Your task to perform on an android device: allow cookies in the chrome app Image 0: 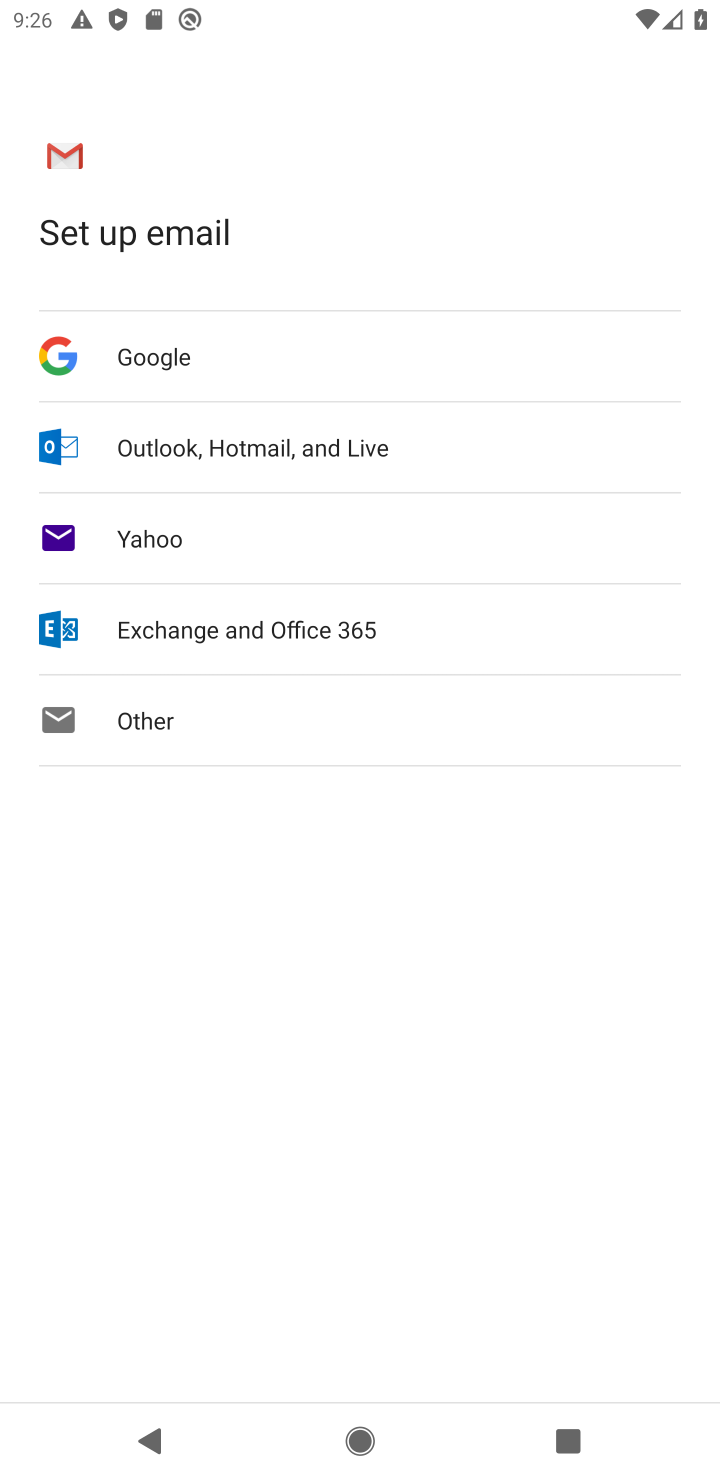
Step 0: press home button
Your task to perform on an android device: allow cookies in the chrome app Image 1: 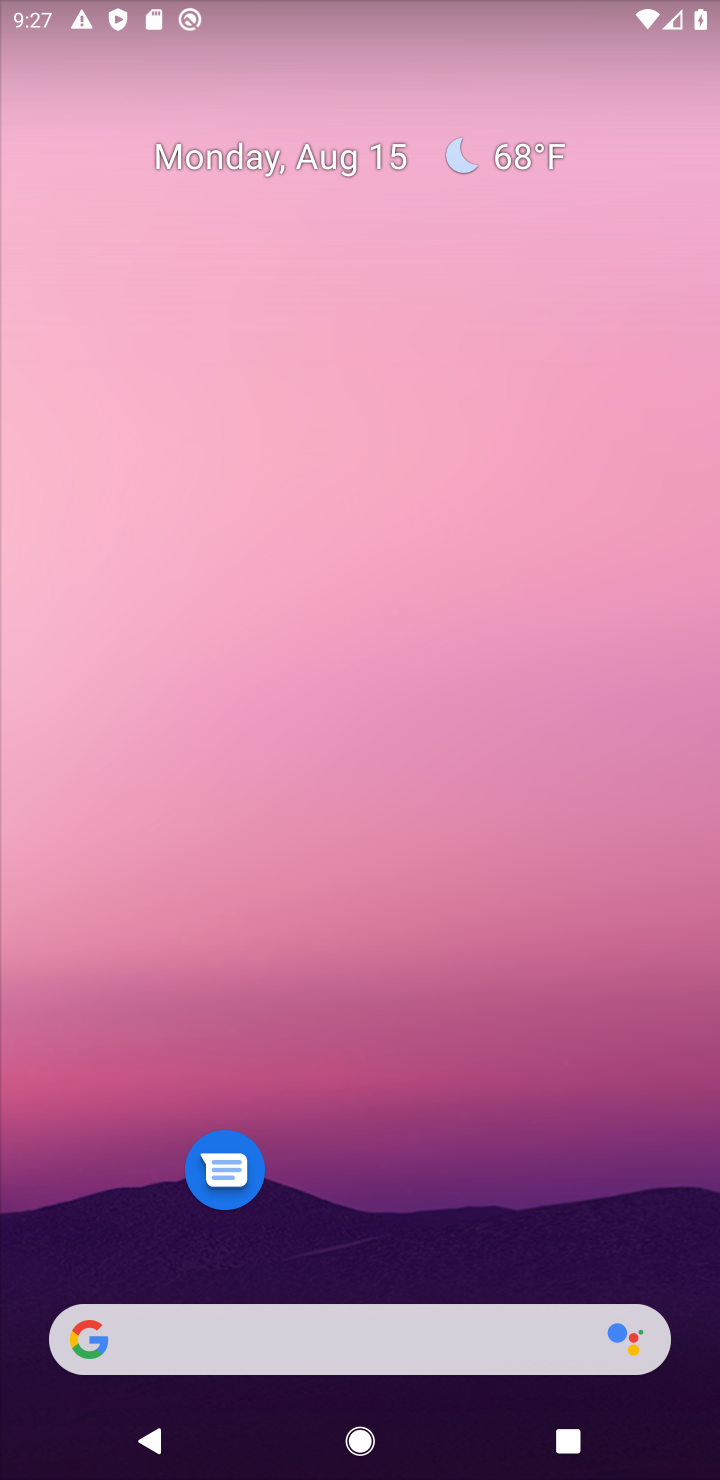
Step 1: drag from (389, 1229) to (482, 0)
Your task to perform on an android device: allow cookies in the chrome app Image 2: 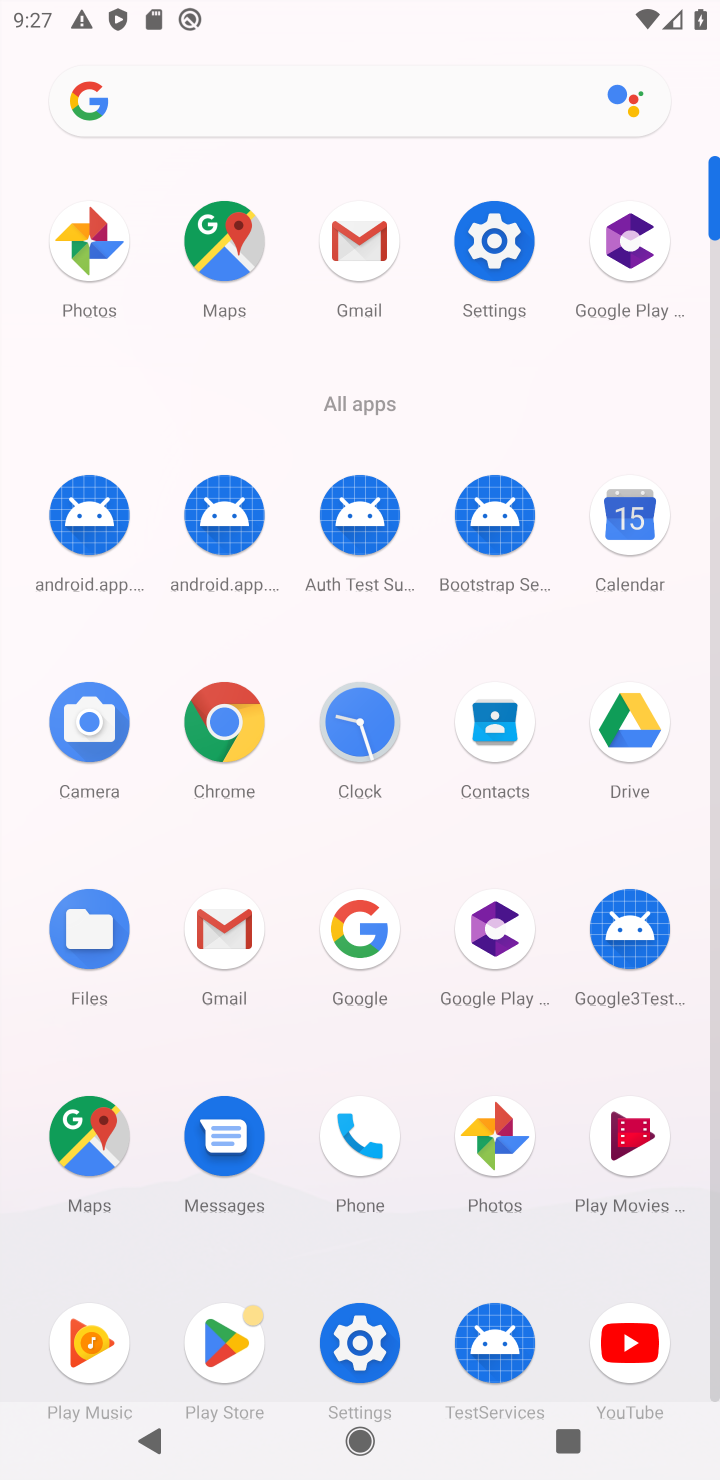
Step 2: click (243, 757)
Your task to perform on an android device: allow cookies in the chrome app Image 3: 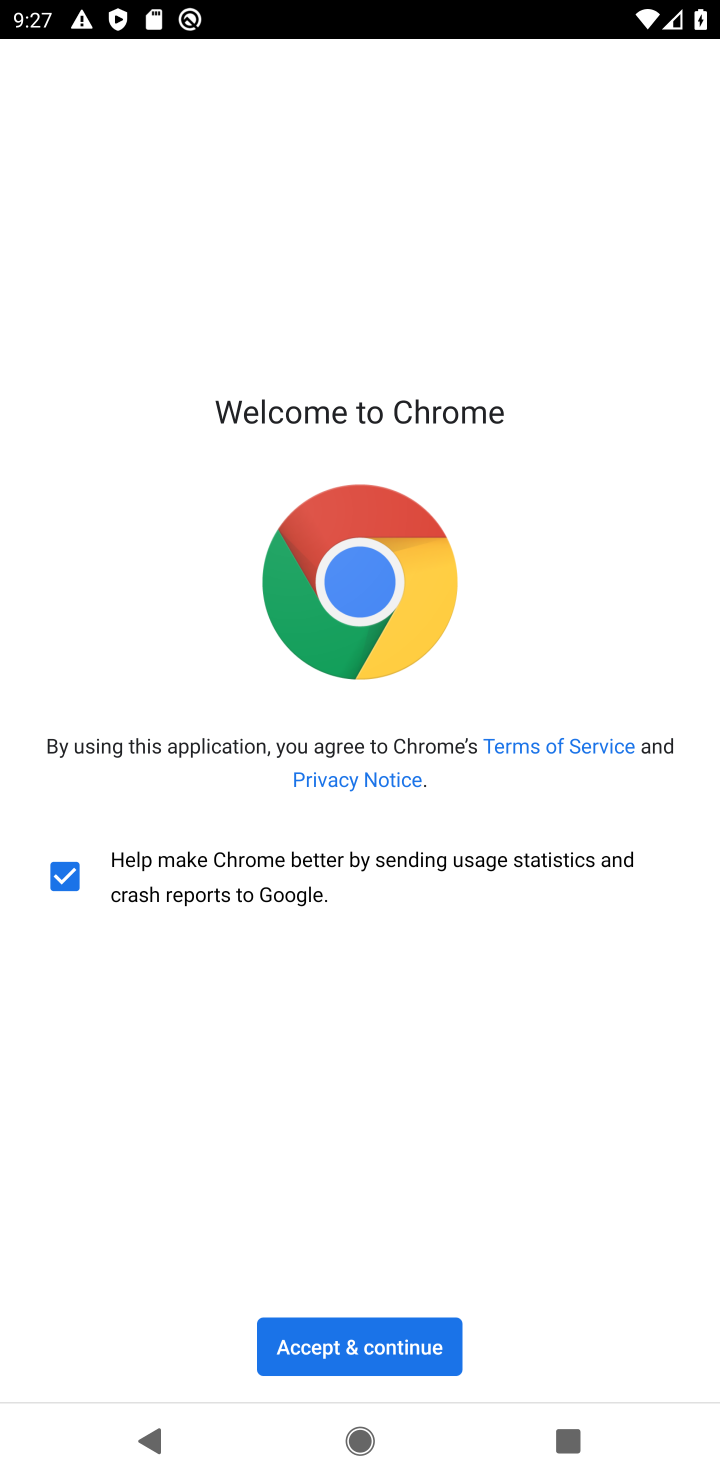
Step 3: click (341, 1363)
Your task to perform on an android device: allow cookies in the chrome app Image 4: 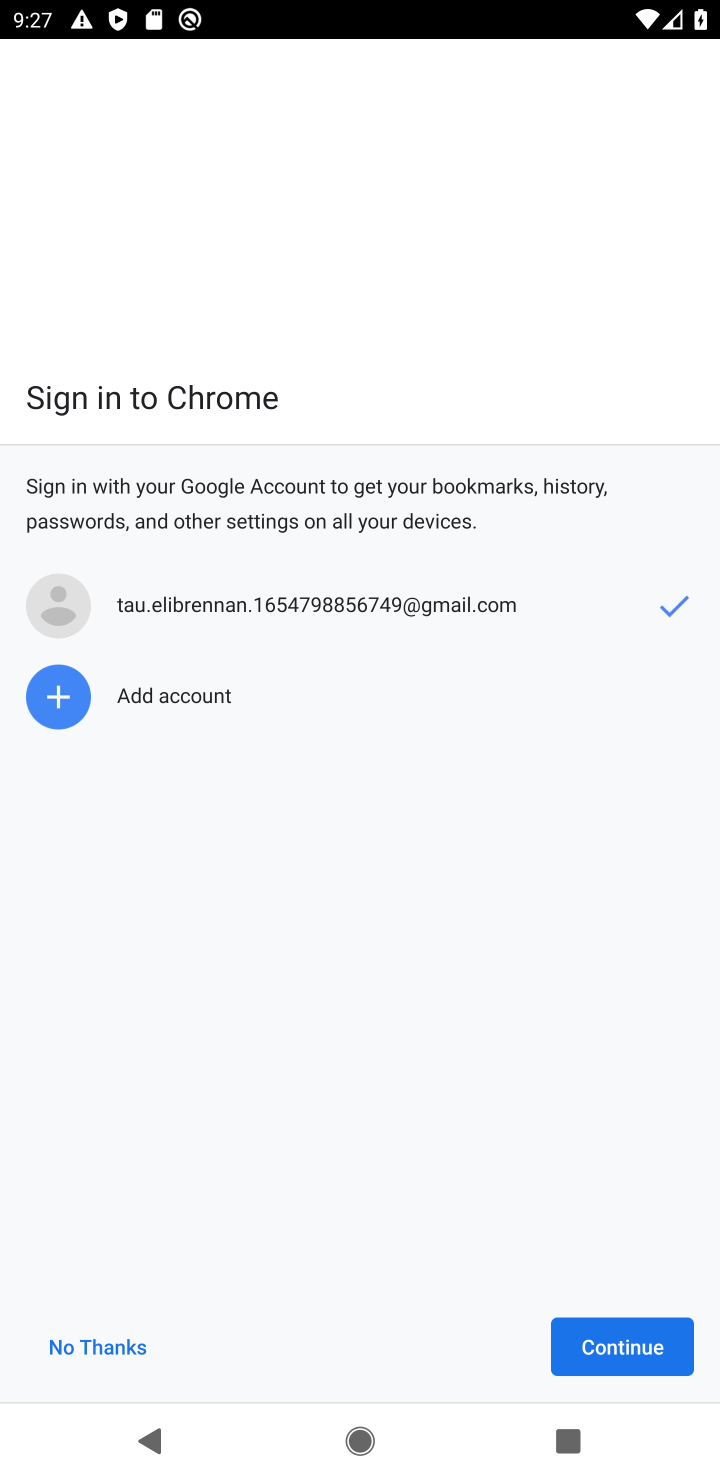
Step 4: click (101, 1354)
Your task to perform on an android device: allow cookies in the chrome app Image 5: 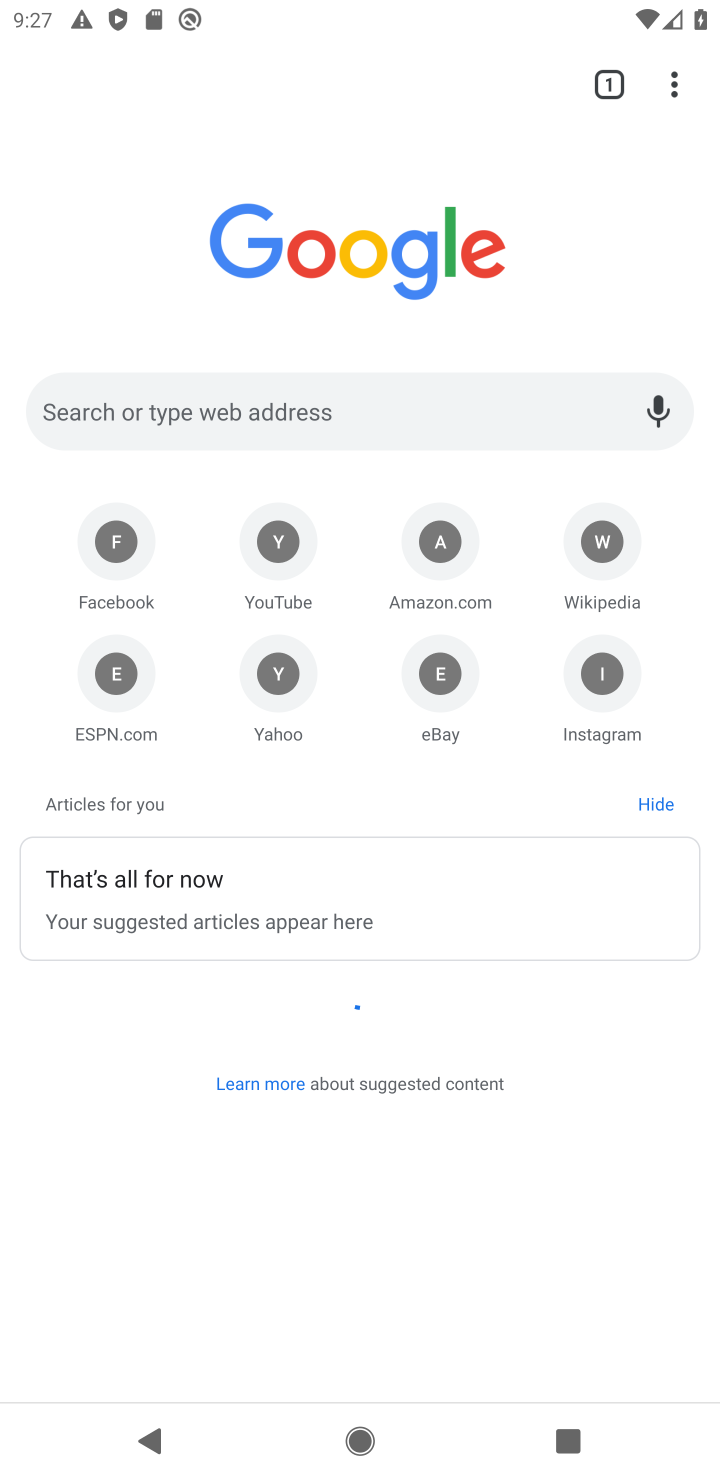
Step 5: drag from (652, 75) to (386, 728)
Your task to perform on an android device: allow cookies in the chrome app Image 6: 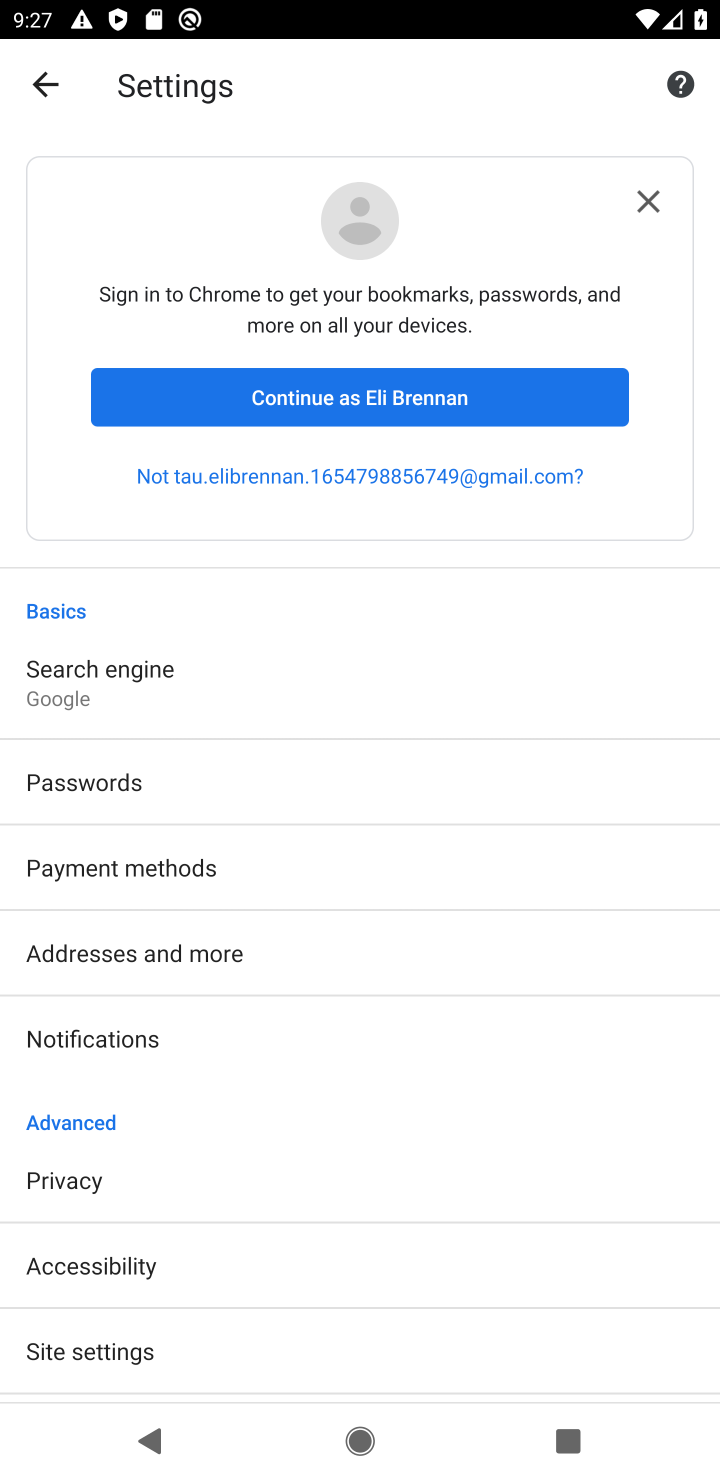
Step 6: drag from (308, 1042) to (400, 610)
Your task to perform on an android device: allow cookies in the chrome app Image 7: 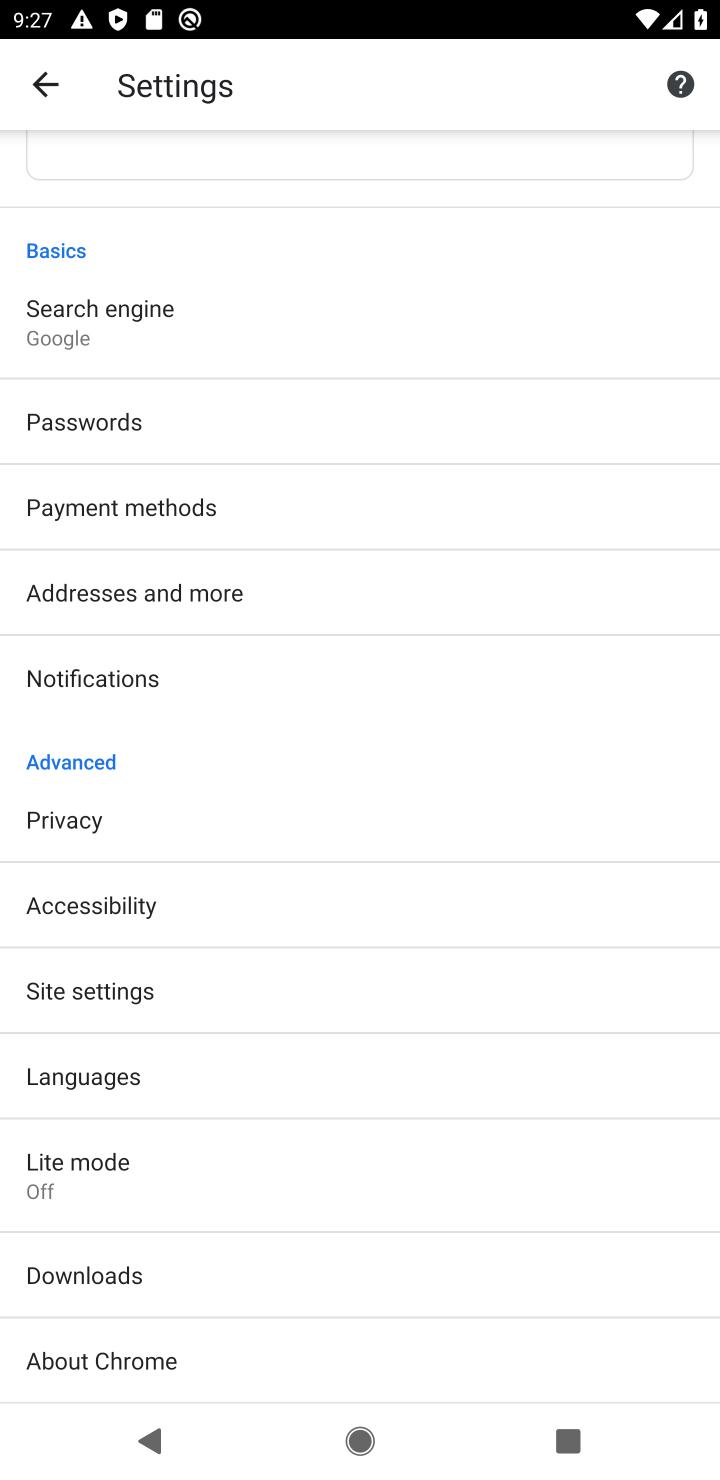
Step 7: click (82, 965)
Your task to perform on an android device: allow cookies in the chrome app Image 8: 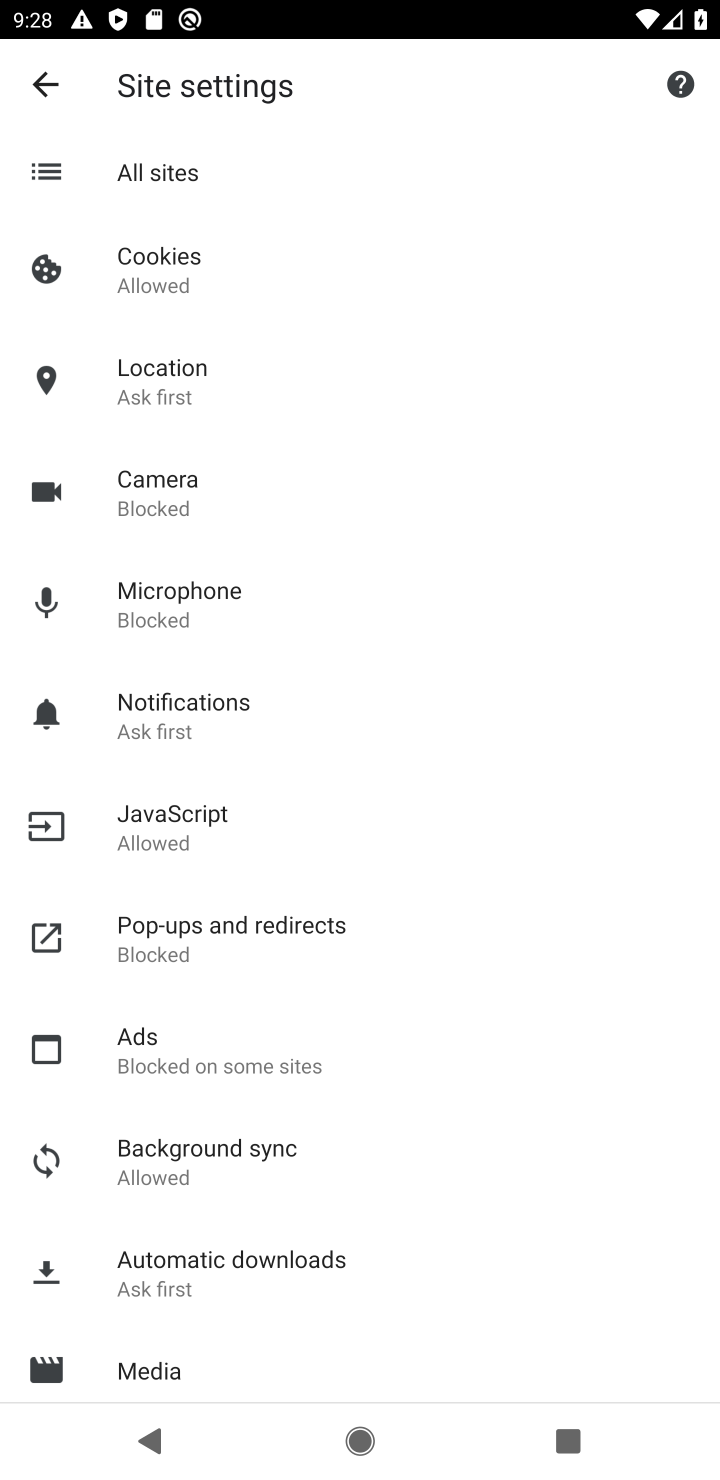
Step 8: click (172, 319)
Your task to perform on an android device: allow cookies in the chrome app Image 9: 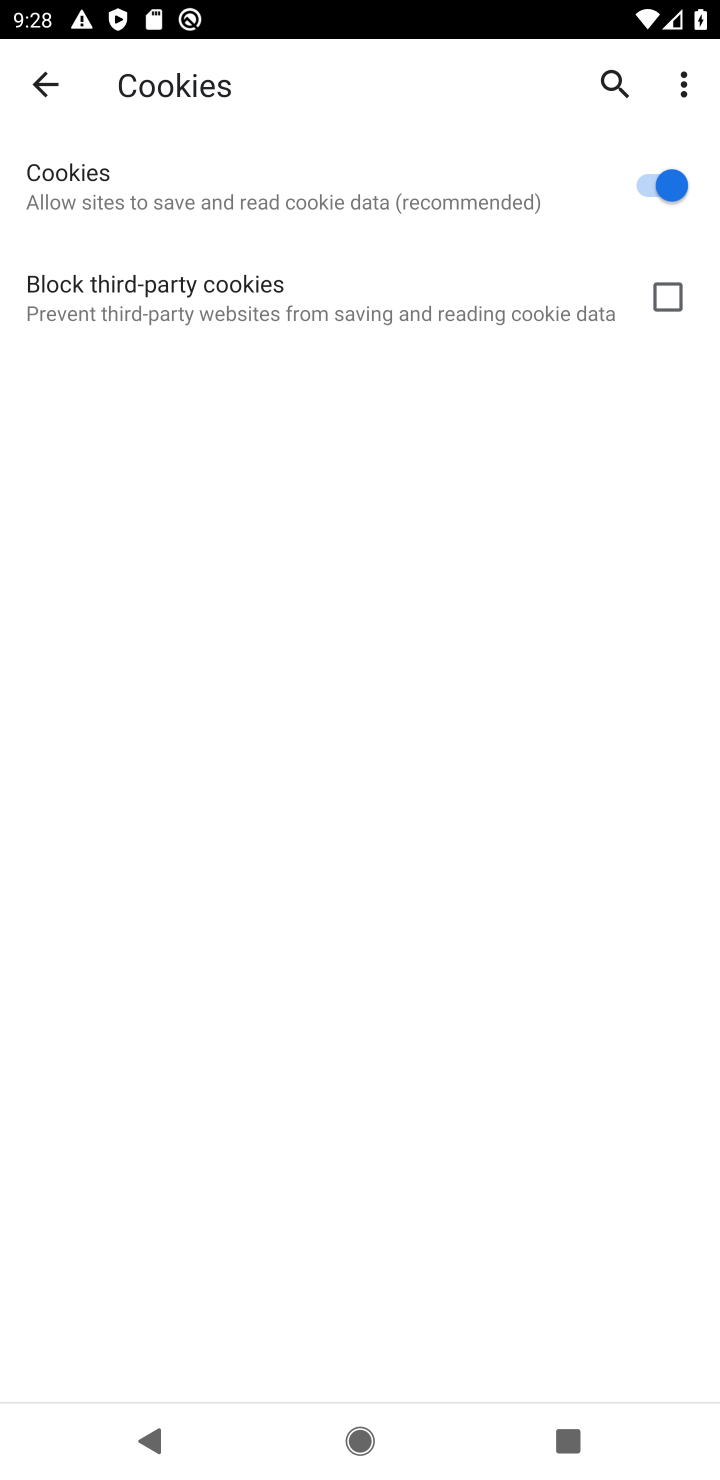
Step 9: task complete